Your task to perform on an android device: Go to Yahoo.com Image 0: 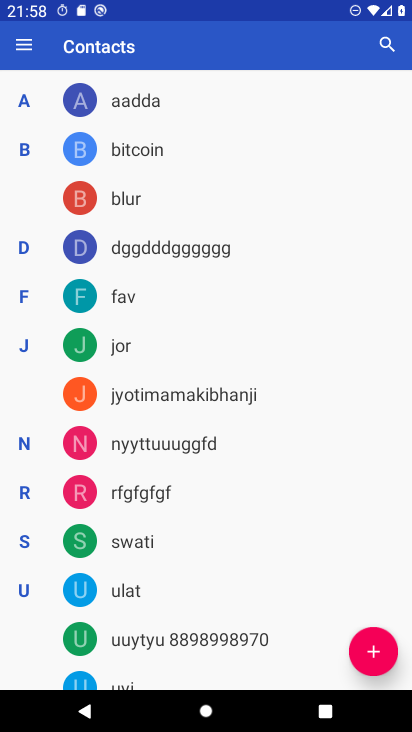
Step 0: press home button
Your task to perform on an android device: Go to Yahoo.com Image 1: 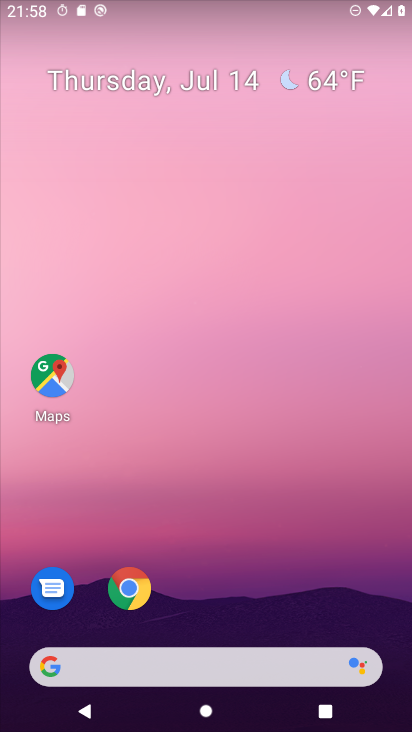
Step 1: drag from (305, 590) to (321, 97)
Your task to perform on an android device: Go to Yahoo.com Image 2: 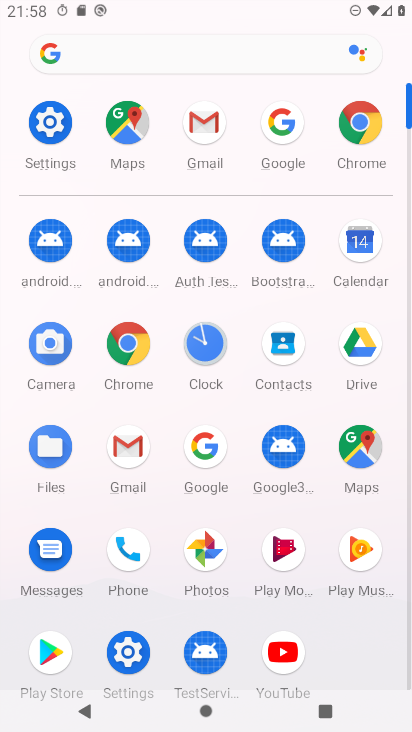
Step 2: click (121, 344)
Your task to perform on an android device: Go to Yahoo.com Image 3: 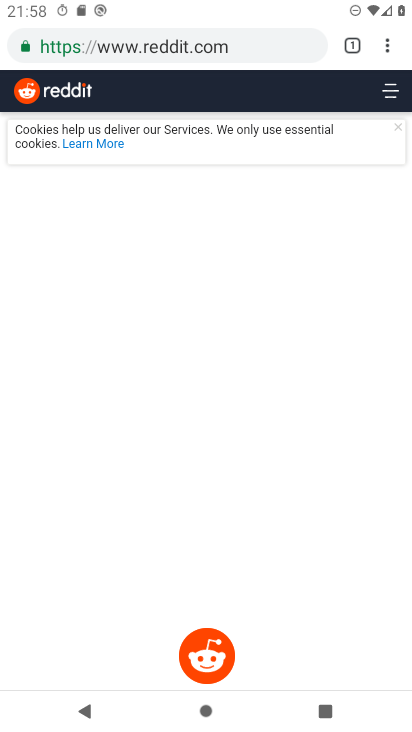
Step 3: click (264, 47)
Your task to perform on an android device: Go to Yahoo.com Image 4: 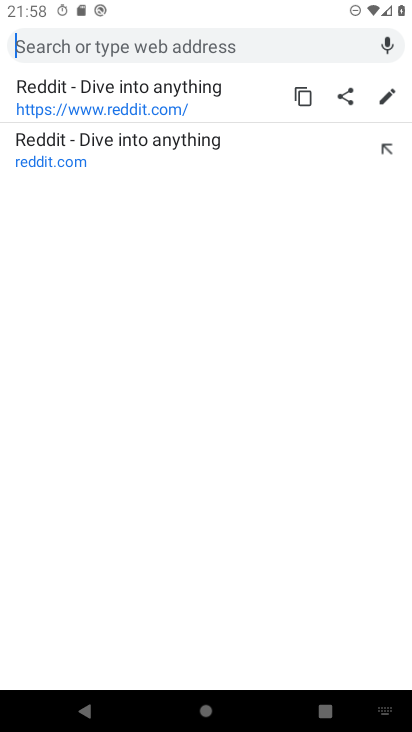
Step 4: type "yahoo.com"
Your task to perform on an android device: Go to Yahoo.com Image 5: 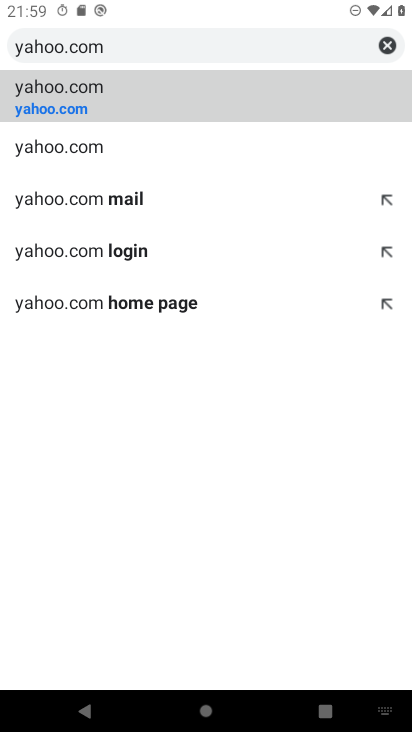
Step 5: click (274, 102)
Your task to perform on an android device: Go to Yahoo.com Image 6: 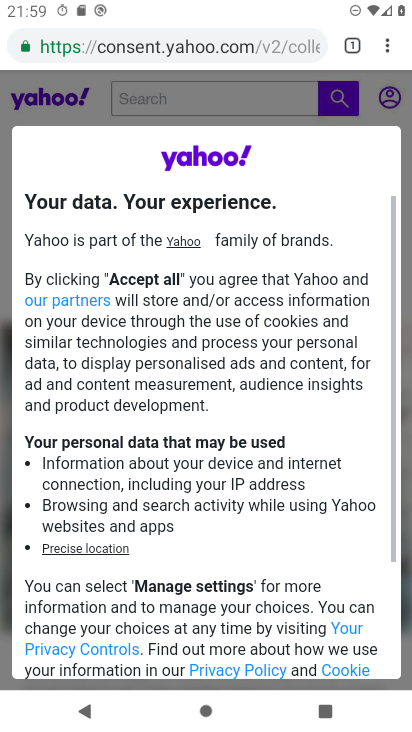
Step 6: task complete